Your task to perform on an android device: set the stopwatch Image 0: 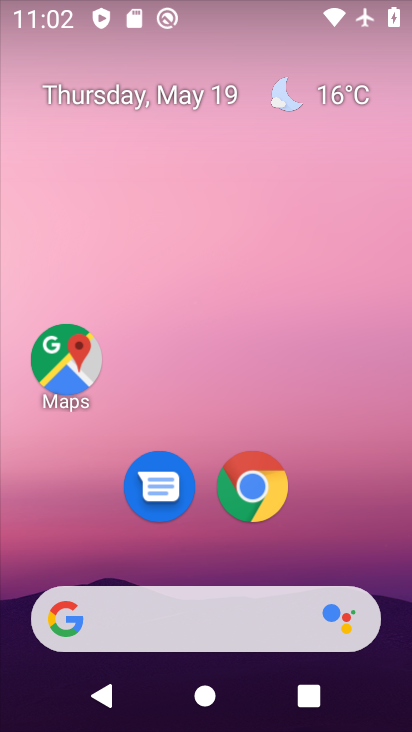
Step 0: drag from (321, 565) to (322, 295)
Your task to perform on an android device: set the stopwatch Image 1: 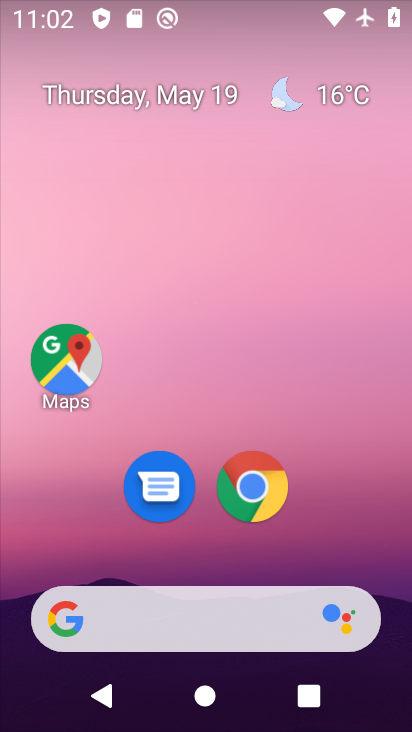
Step 1: drag from (389, 551) to (401, 67)
Your task to perform on an android device: set the stopwatch Image 2: 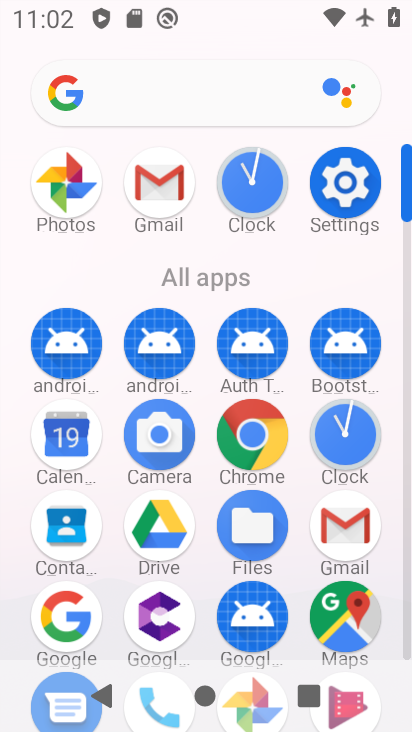
Step 2: click (274, 161)
Your task to perform on an android device: set the stopwatch Image 3: 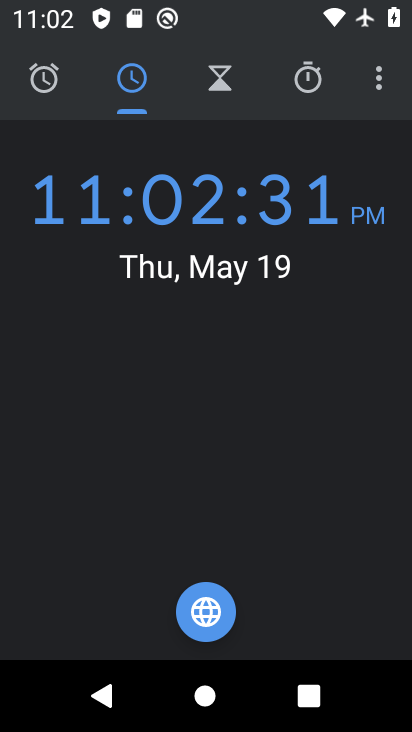
Step 3: click (311, 75)
Your task to perform on an android device: set the stopwatch Image 4: 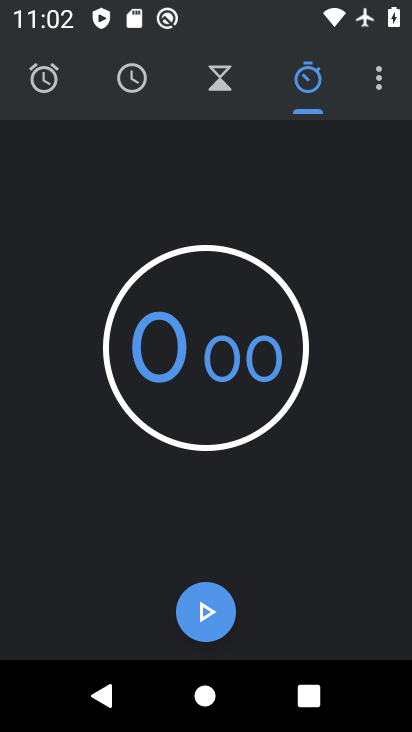
Step 4: task complete